Your task to perform on an android device: turn off notifications settings in the gmail app Image 0: 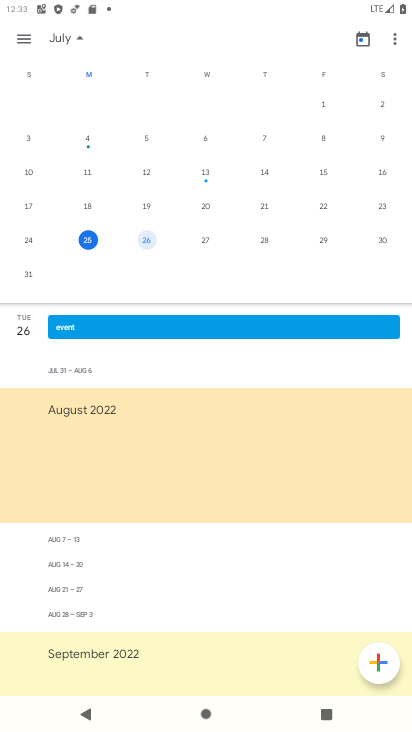
Step 0: press home button
Your task to perform on an android device: turn off notifications settings in the gmail app Image 1: 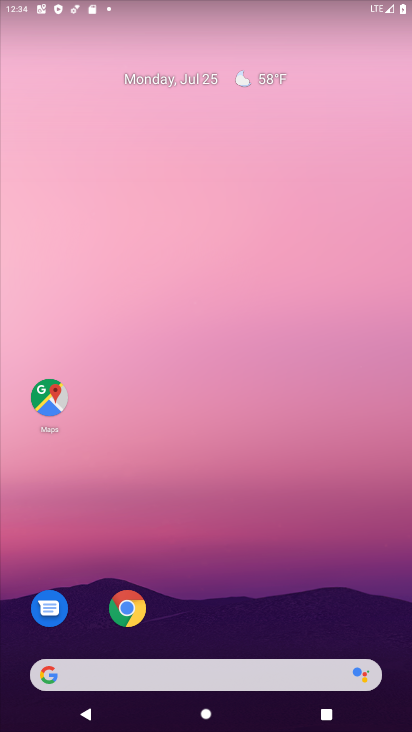
Step 1: drag from (184, 675) to (212, 2)
Your task to perform on an android device: turn off notifications settings in the gmail app Image 2: 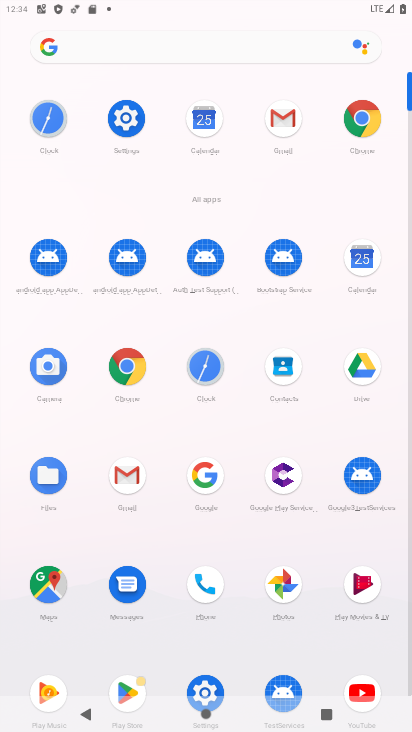
Step 2: click (283, 116)
Your task to perform on an android device: turn off notifications settings in the gmail app Image 3: 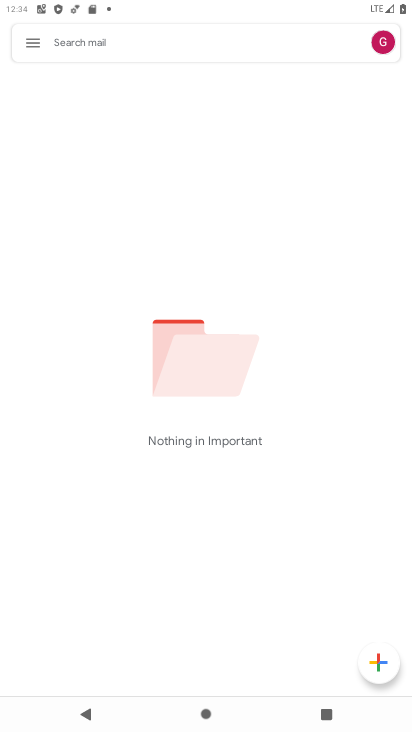
Step 3: click (33, 44)
Your task to perform on an android device: turn off notifications settings in the gmail app Image 4: 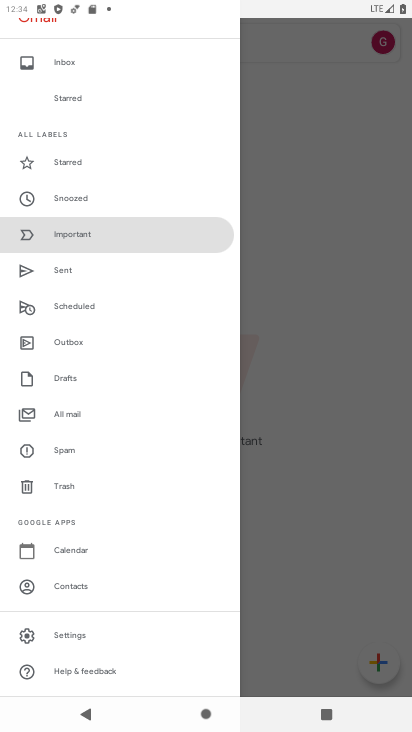
Step 4: click (71, 638)
Your task to perform on an android device: turn off notifications settings in the gmail app Image 5: 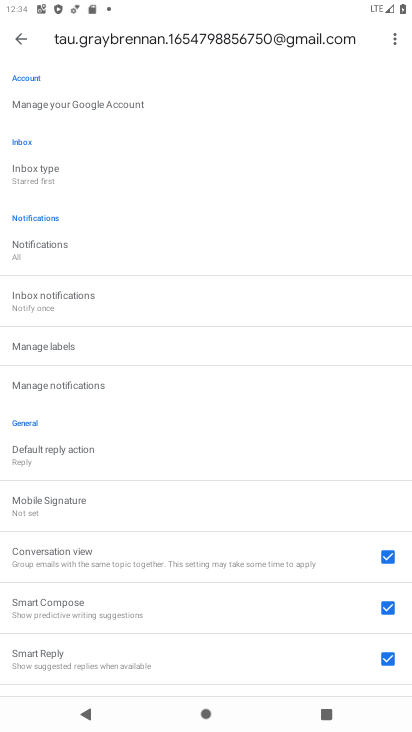
Step 5: click (81, 389)
Your task to perform on an android device: turn off notifications settings in the gmail app Image 6: 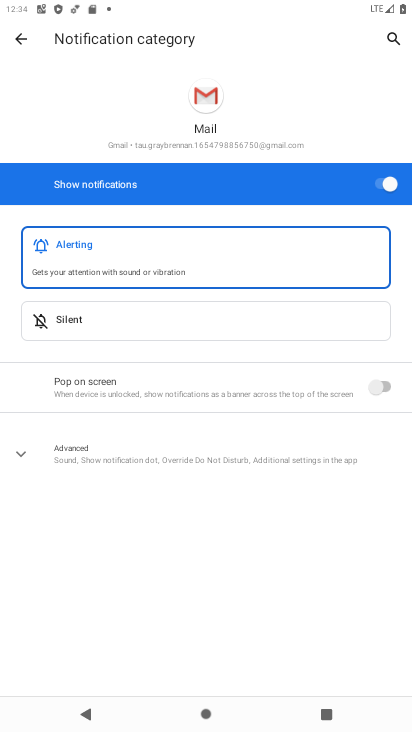
Step 6: click (383, 188)
Your task to perform on an android device: turn off notifications settings in the gmail app Image 7: 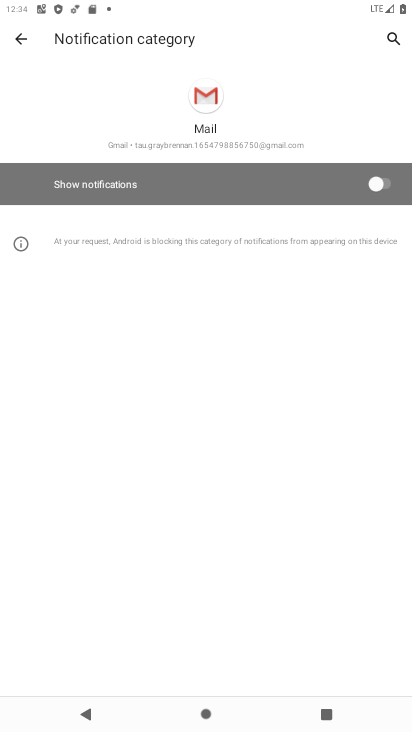
Step 7: task complete